Your task to perform on an android device: turn off improve location accuracy Image 0: 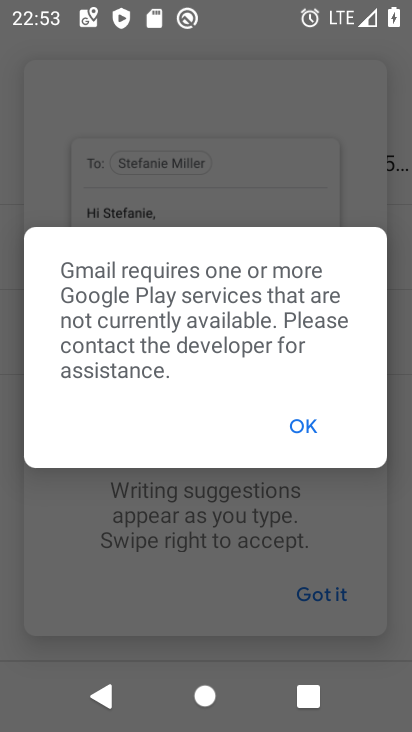
Step 0: click (292, 420)
Your task to perform on an android device: turn off improve location accuracy Image 1: 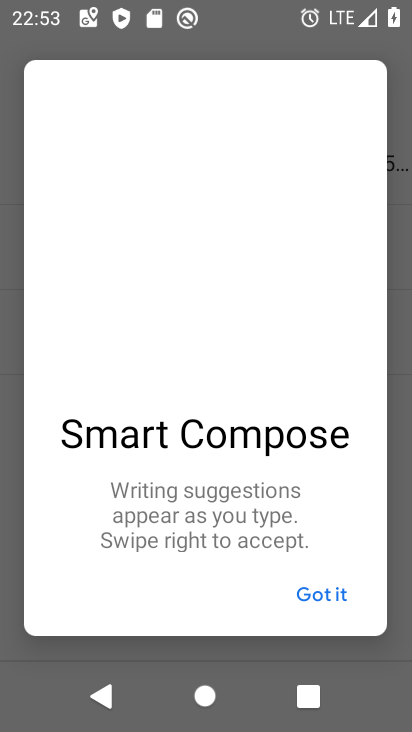
Step 1: click (317, 580)
Your task to perform on an android device: turn off improve location accuracy Image 2: 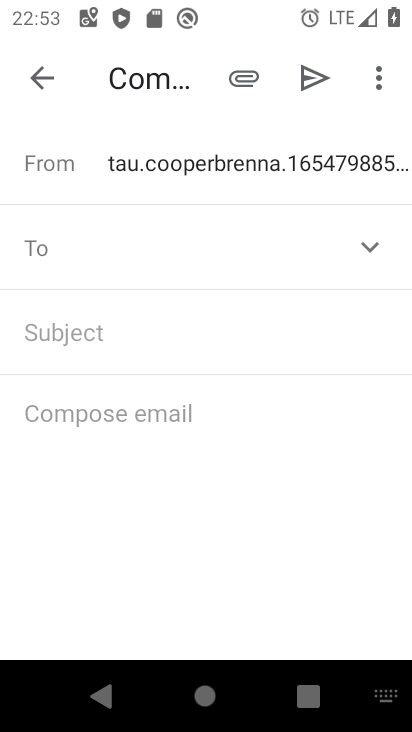
Step 2: press back button
Your task to perform on an android device: turn off improve location accuracy Image 3: 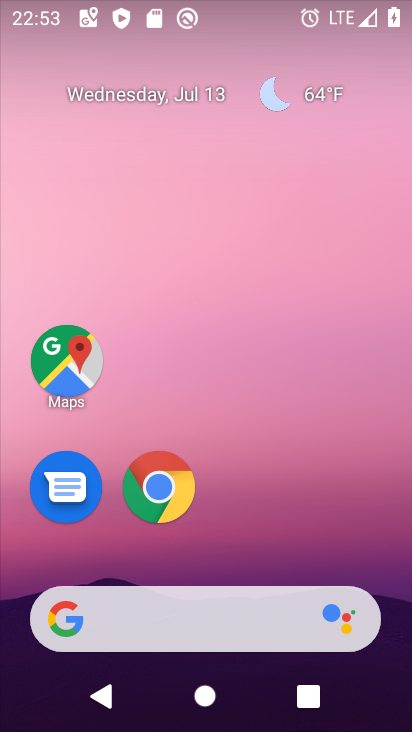
Step 3: drag from (244, 587) to (293, 47)
Your task to perform on an android device: turn off improve location accuracy Image 4: 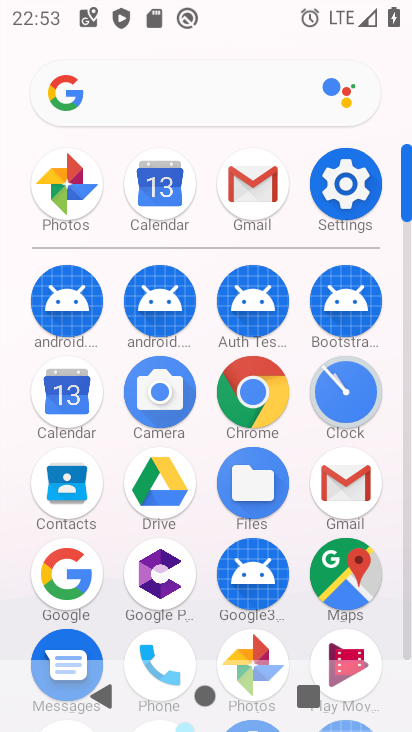
Step 4: click (348, 172)
Your task to perform on an android device: turn off improve location accuracy Image 5: 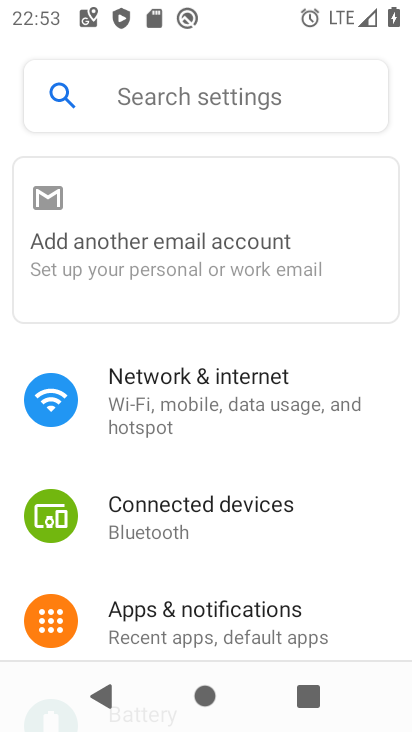
Step 5: drag from (196, 578) to (271, 102)
Your task to perform on an android device: turn off improve location accuracy Image 6: 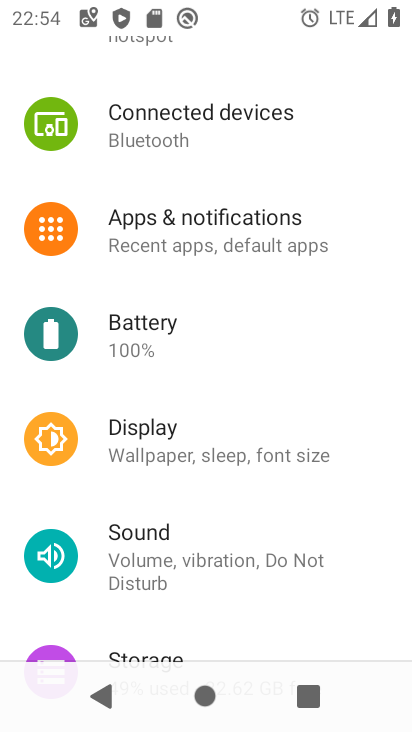
Step 6: drag from (172, 604) to (261, 156)
Your task to perform on an android device: turn off improve location accuracy Image 7: 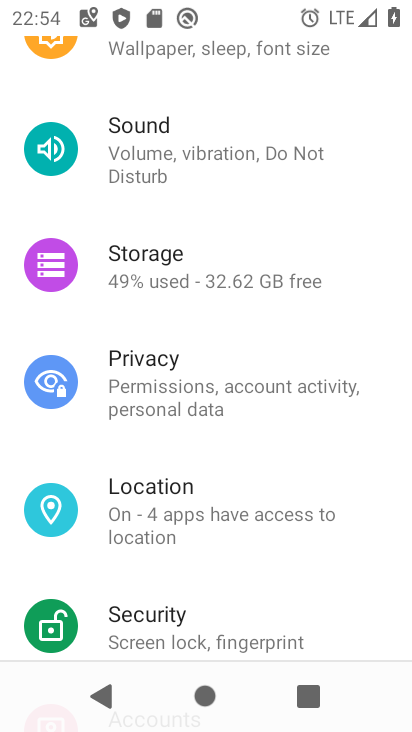
Step 7: click (189, 497)
Your task to perform on an android device: turn off improve location accuracy Image 8: 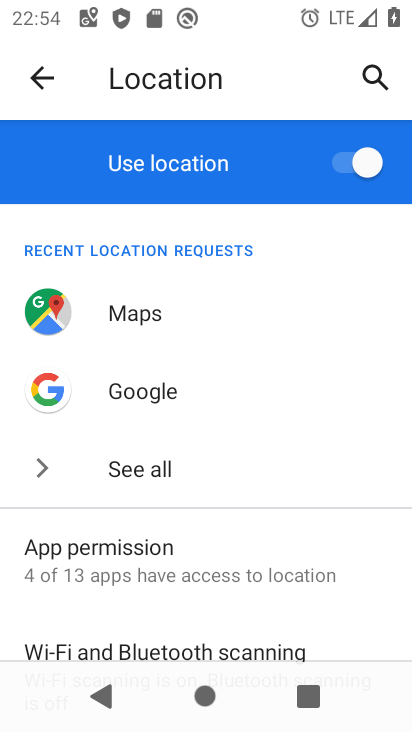
Step 8: drag from (190, 604) to (289, 136)
Your task to perform on an android device: turn off improve location accuracy Image 9: 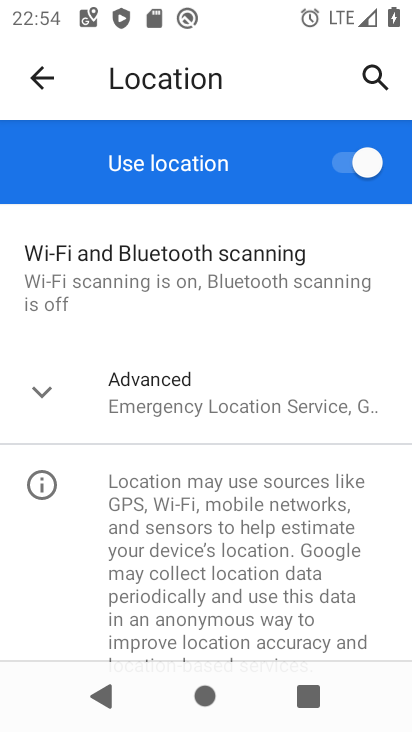
Step 9: click (182, 390)
Your task to perform on an android device: turn off improve location accuracy Image 10: 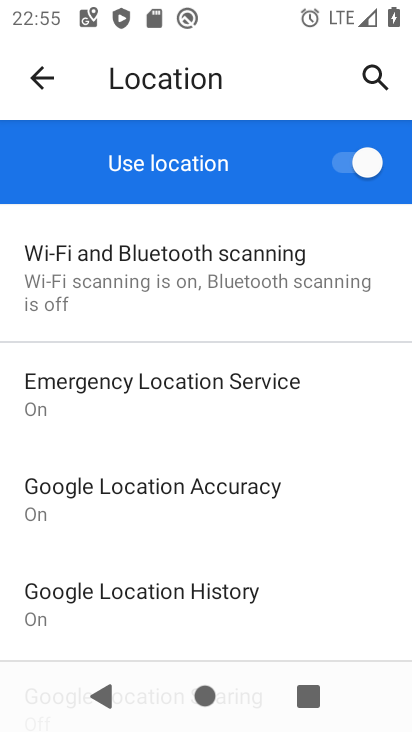
Step 10: click (206, 474)
Your task to perform on an android device: turn off improve location accuracy Image 11: 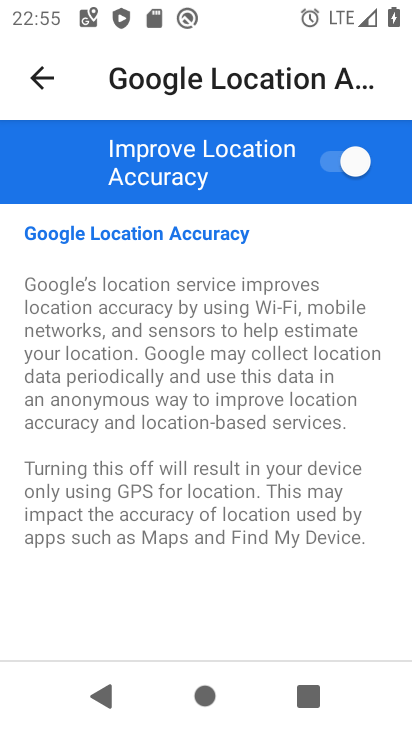
Step 11: click (353, 153)
Your task to perform on an android device: turn off improve location accuracy Image 12: 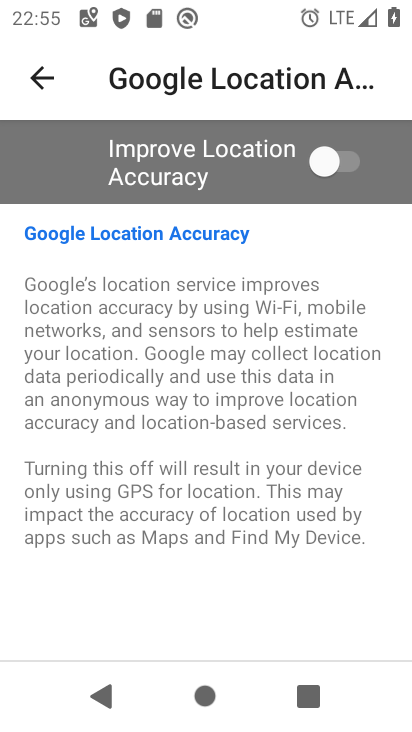
Step 12: task complete